Your task to perform on an android device: add a label to a message in the gmail app Image 0: 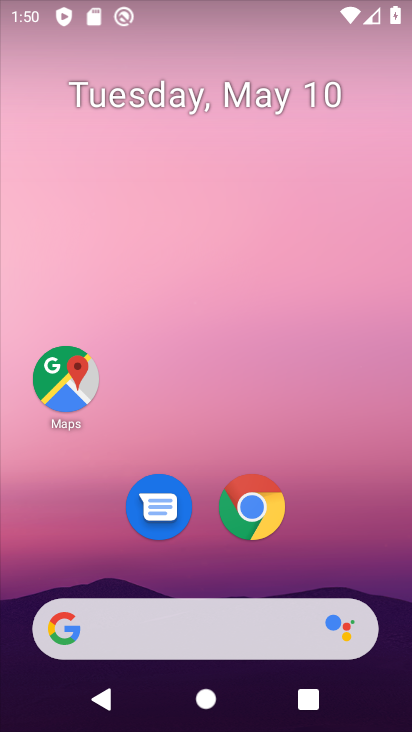
Step 0: drag from (318, 539) to (229, 142)
Your task to perform on an android device: add a label to a message in the gmail app Image 1: 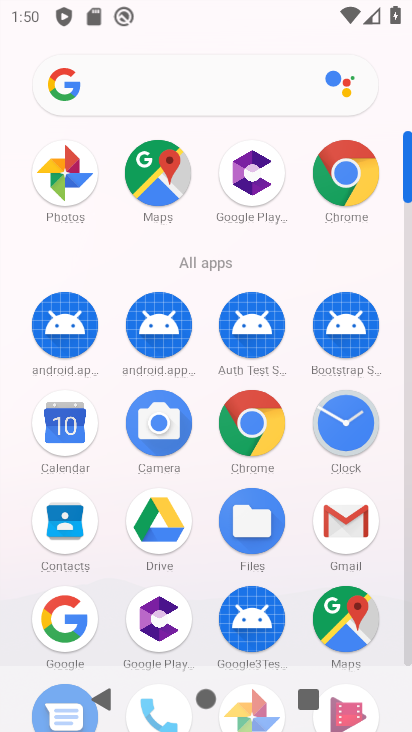
Step 1: click (361, 516)
Your task to perform on an android device: add a label to a message in the gmail app Image 2: 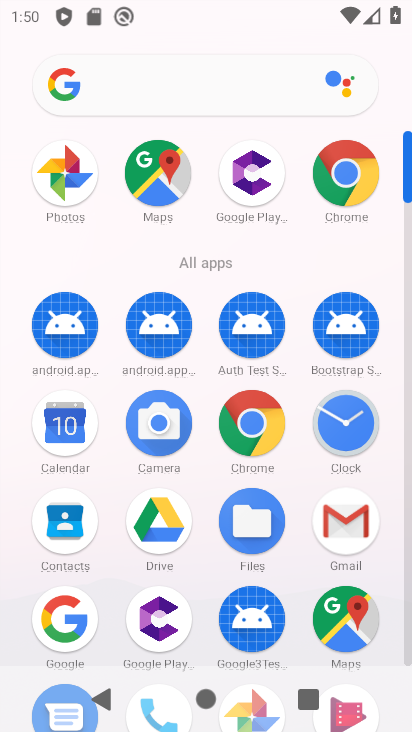
Step 2: click (361, 516)
Your task to perform on an android device: add a label to a message in the gmail app Image 3: 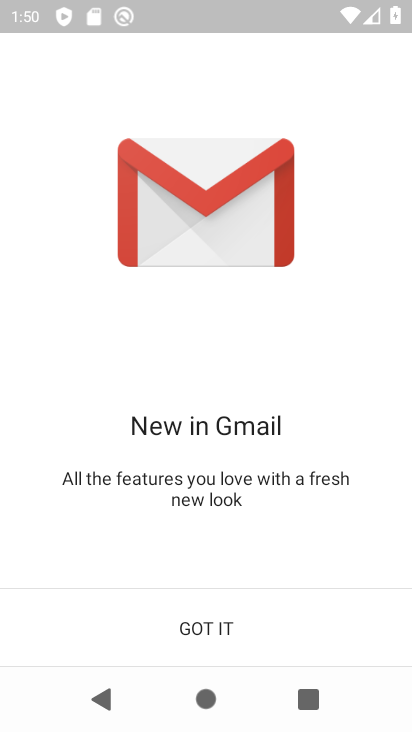
Step 3: click (192, 637)
Your task to perform on an android device: add a label to a message in the gmail app Image 4: 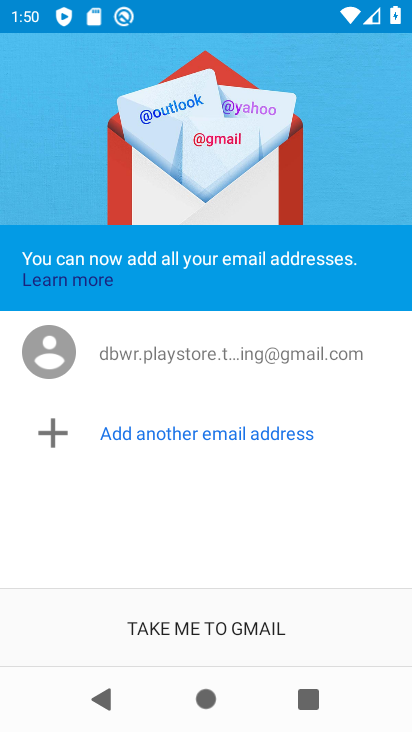
Step 4: click (226, 629)
Your task to perform on an android device: add a label to a message in the gmail app Image 5: 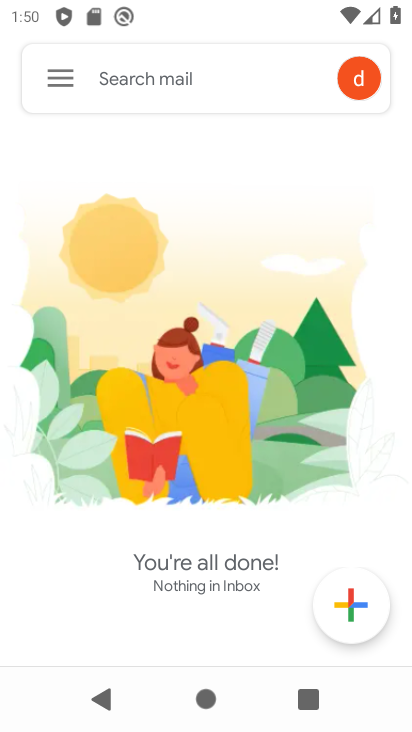
Step 5: drag from (49, 86) to (24, 243)
Your task to perform on an android device: add a label to a message in the gmail app Image 6: 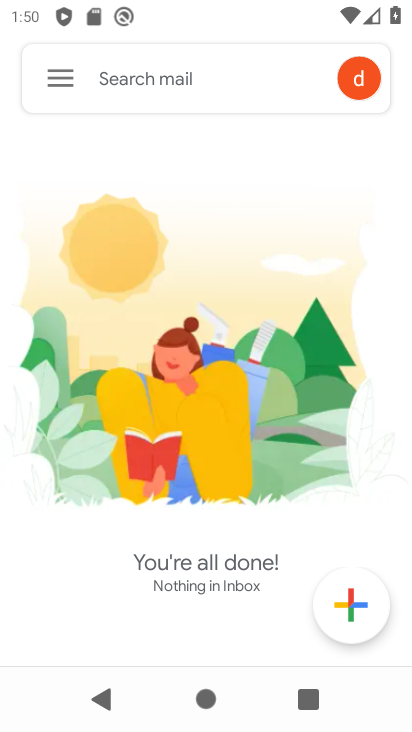
Step 6: click (58, 73)
Your task to perform on an android device: add a label to a message in the gmail app Image 7: 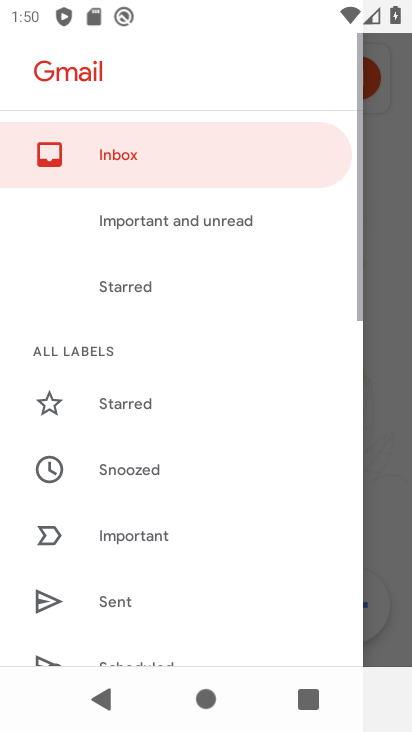
Step 7: click (65, 73)
Your task to perform on an android device: add a label to a message in the gmail app Image 8: 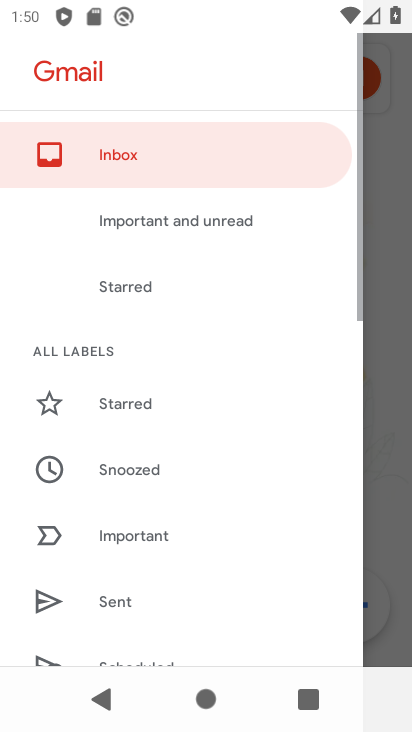
Step 8: drag from (132, 413) to (102, 172)
Your task to perform on an android device: add a label to a message in the gmail app Image 9: 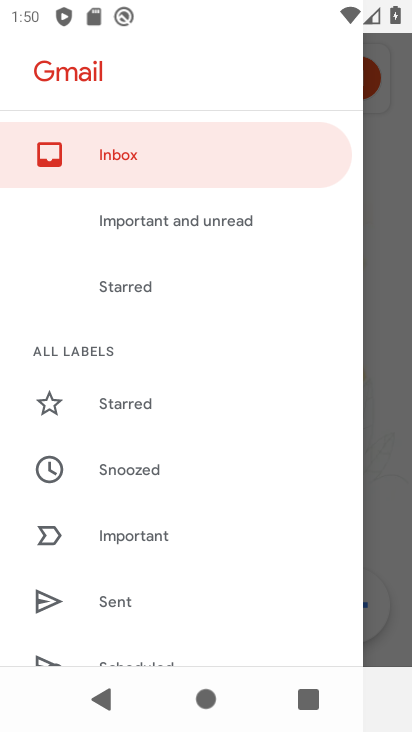
Step 9: drag from (175, 427) to (175, 86)
Your task to perform on an android device: add a label to a message in the gmail app Image 10: 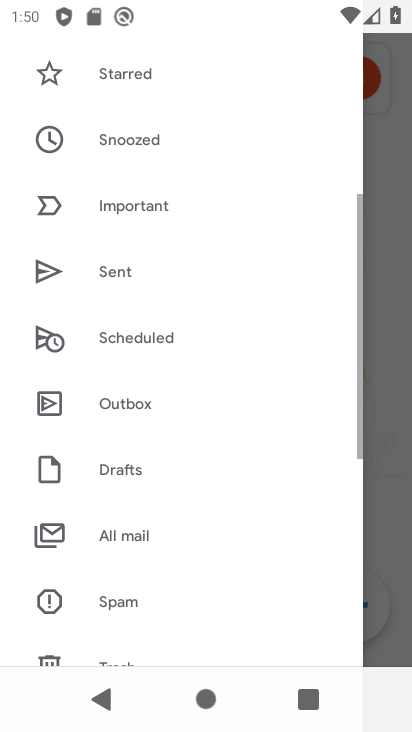
Step 10: drag from (173, 486) to (157, 138)
Your task to perform on an android device: add a label to a message in the gmail app Image 11: 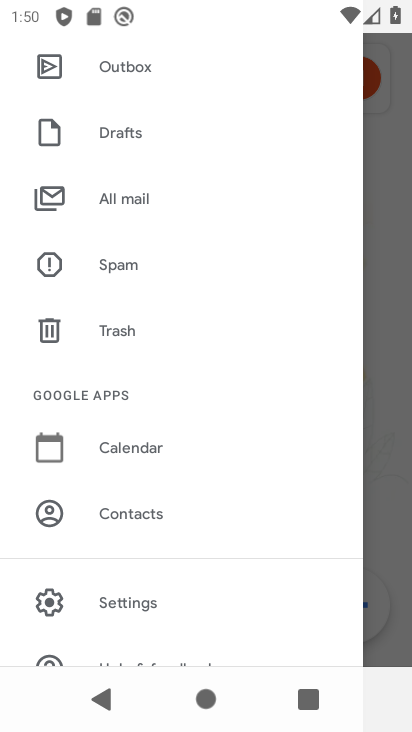
Step 11: click (114, 195)
Your task to perform on an android device: add a label to a message in the gmail app Image 12: 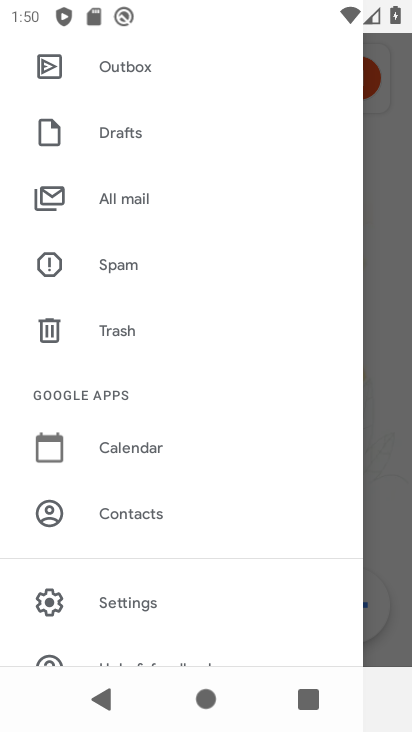
Step 12: click (114, 195)
Your task to perform on an android device: add a label to a message in the gmail app Image 13: 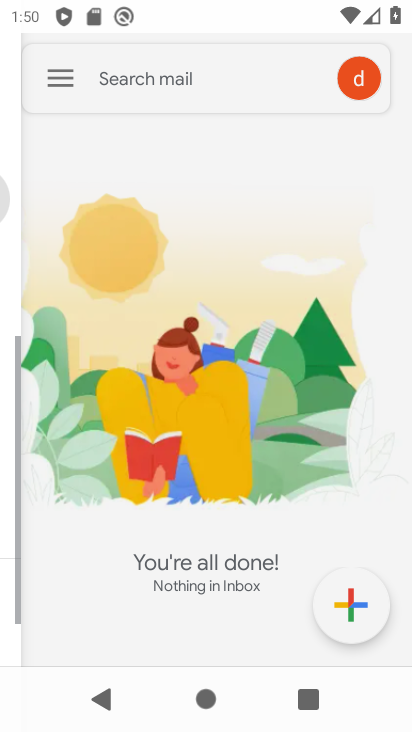
Step 13: click (114, 195)
Your task to perform on an android device: add a label to a message in the gmail app Image 14: 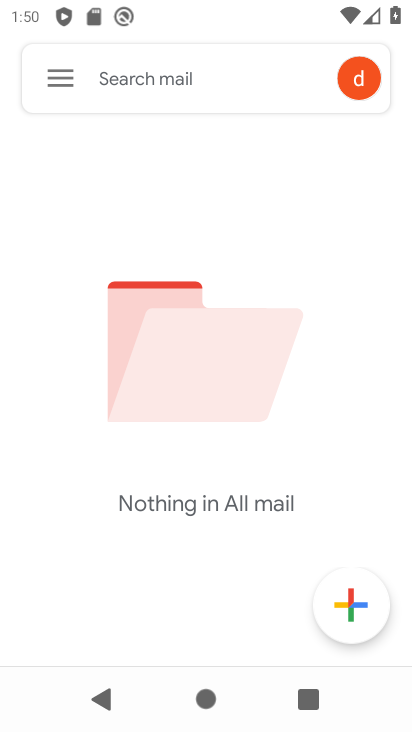
Step 14: task complete